Your task to perform on an android device: Search for Mexican restaurants on Maps Image 0: 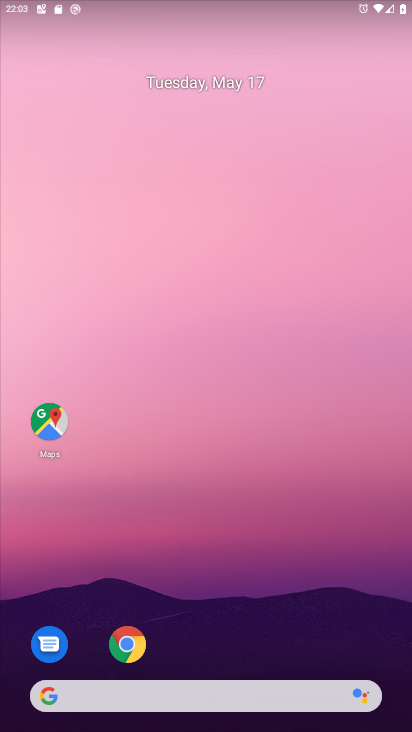
Step 0: click (42, 421)
Your task to perform on an android device: Search for Mexican restaurants on Maps Image 1: 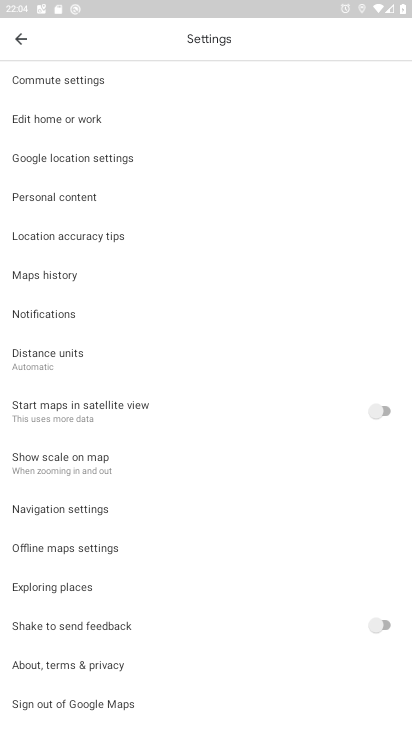
Step 1: click (16, 28)
Your task to perform on an android device: Search for Mexican restaurants on Maps Image 2: 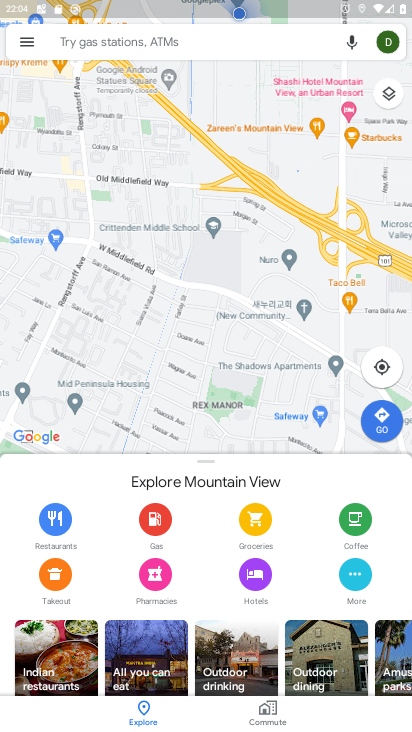
Step 2: click (139, 37)
Your task to perform on an android device: Search for Mexican restaurants on Maps Image 3: 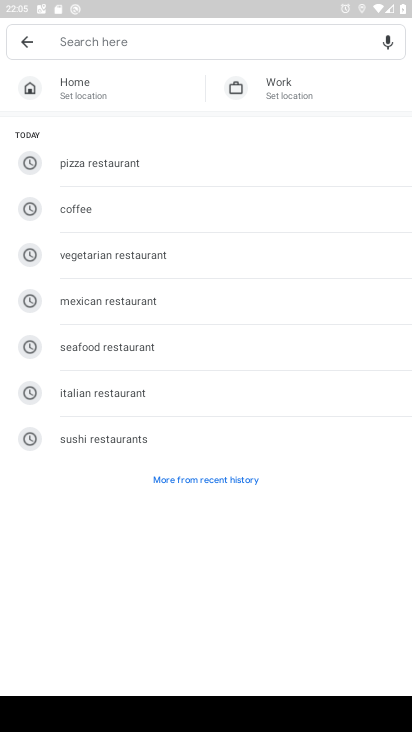
Step 3: click (138, 294)
Your task to perform on an android device: Search for Mexican restaurants on Maps Image 4: 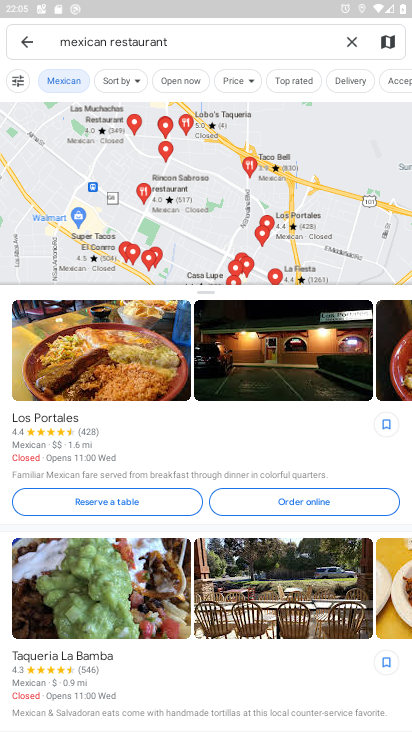
Step 4: task complete